Your task to perform on an android device: open a bookmark in the chrome app Image 0: 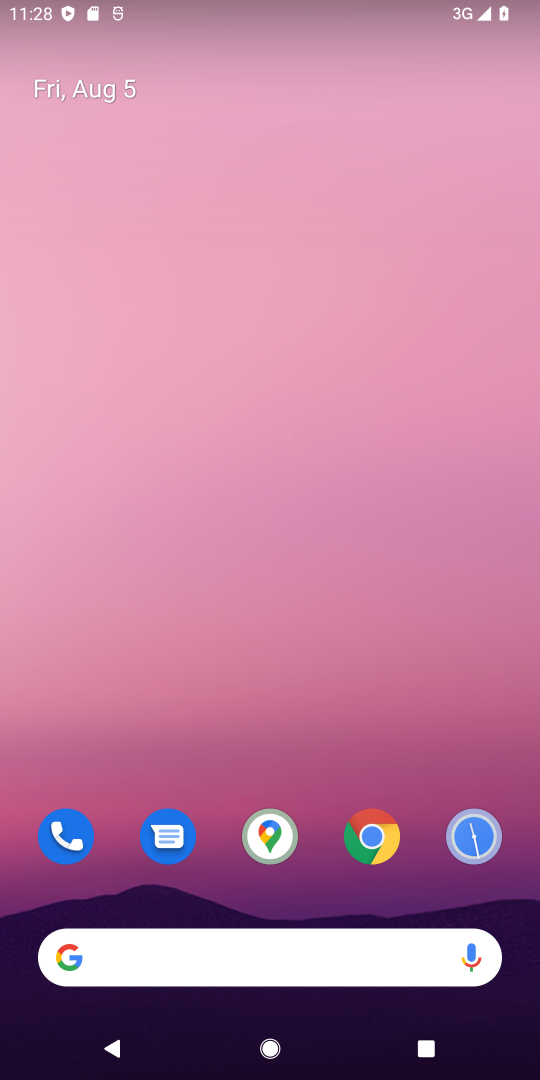
Step 0: drag from (327, 910) to (341, 66)
Your task to perform on an android device: open a bookmark in the chrome app Image 1: 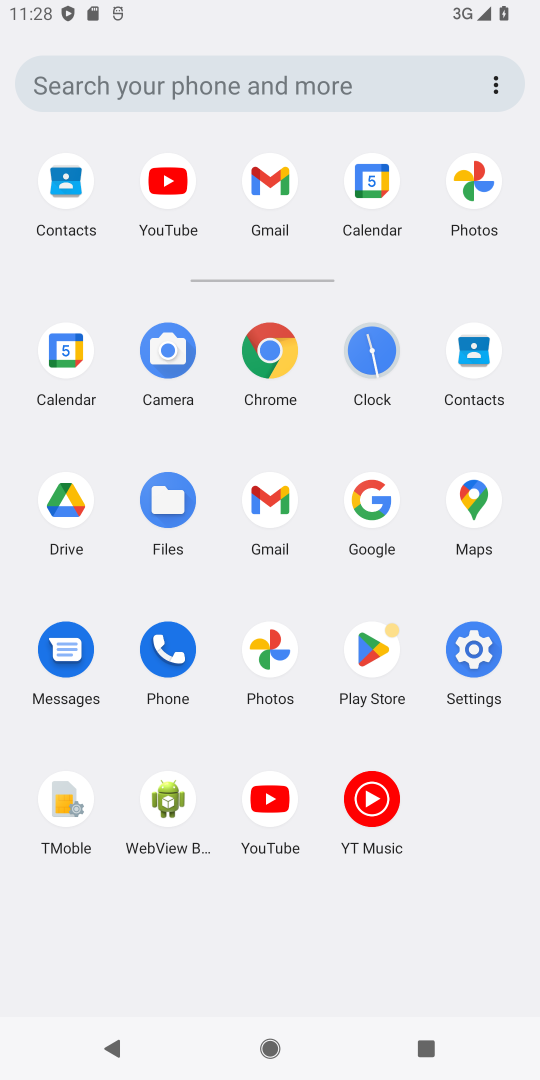
Step 1: click (280, 353)
Your task to perform on an android device: open a bookmark in the chrome app Image 2: 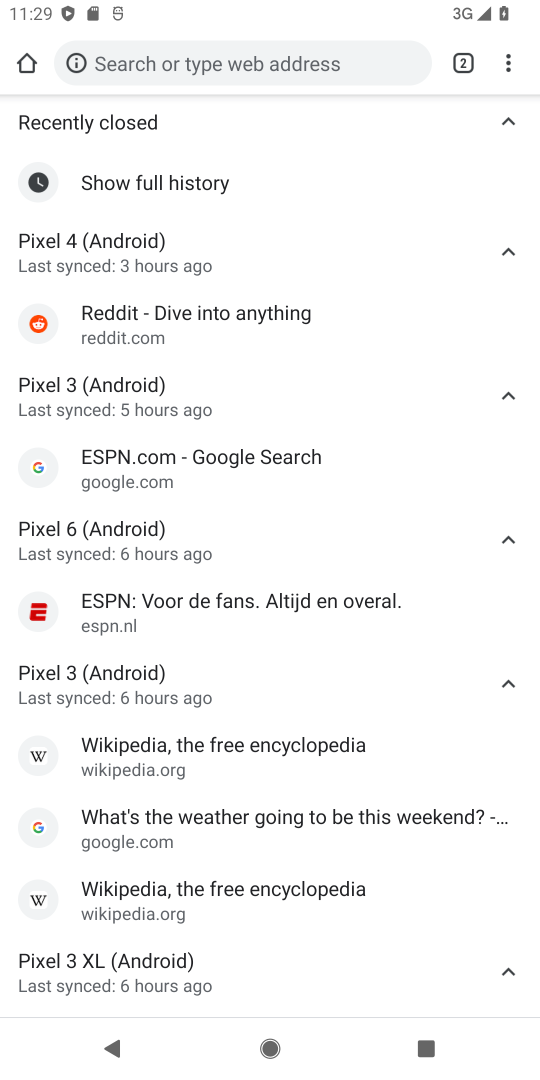
Step 2: drag from (513, 46) to (326, 421)
Your task to perform on an android device: open a bookmark in the chrome app Image 3: 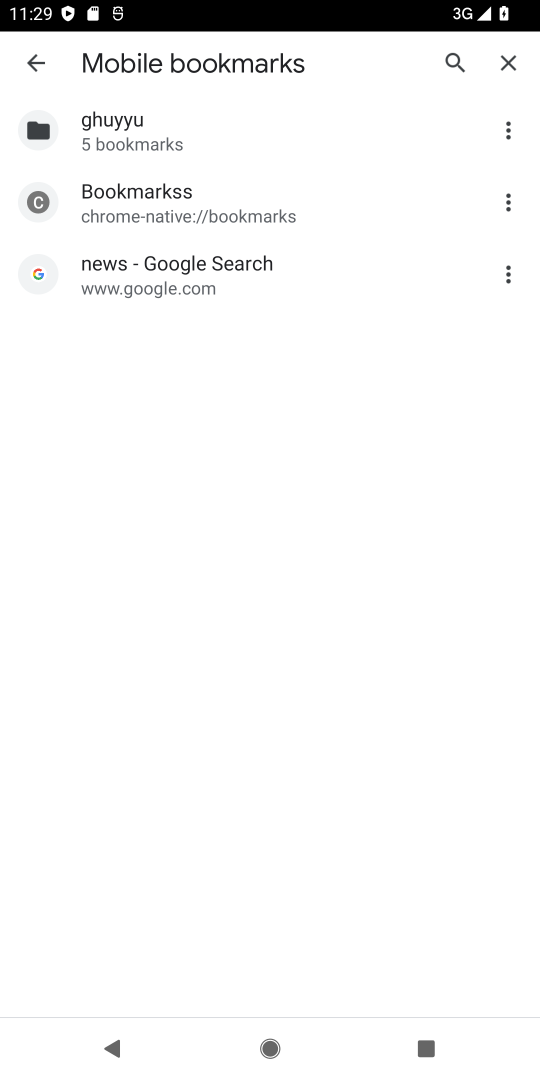
Step 3: click (188, 269)
Your task to perform on an android device: open a bookmark in the chrome app Image 4: 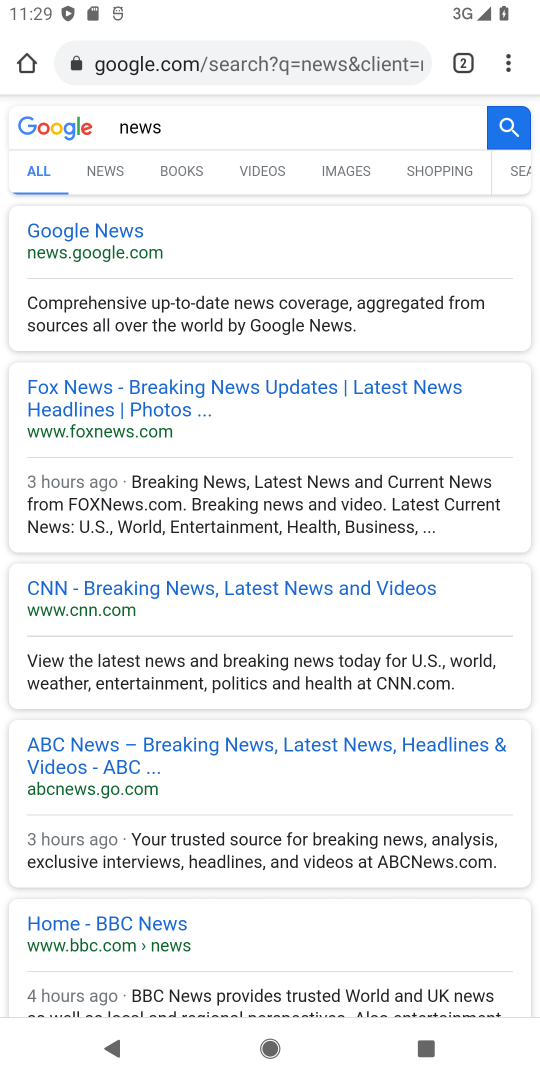
Step 4: task complete